Your task to perform on an android device: all mails in gmail Image 0: 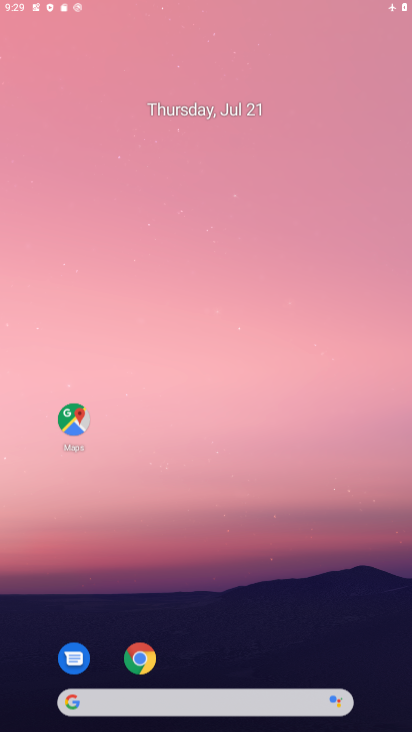
Step 0: click (134, 670)
Your task to perform on an android device: all mails in gmail Image 1: 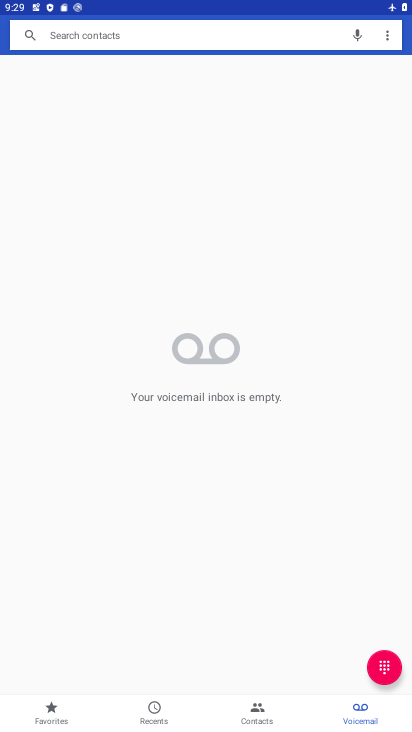
Step 1: press home button
Your task to perform on an android device: all mails in gmail Image 2: 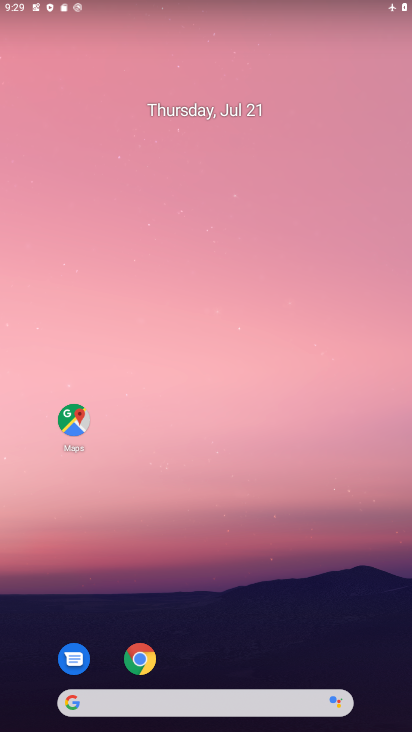
Step 2: drag from (231, 671) to (201, 85)
Your task to perform on an android device: all mails in gmail Image 3: 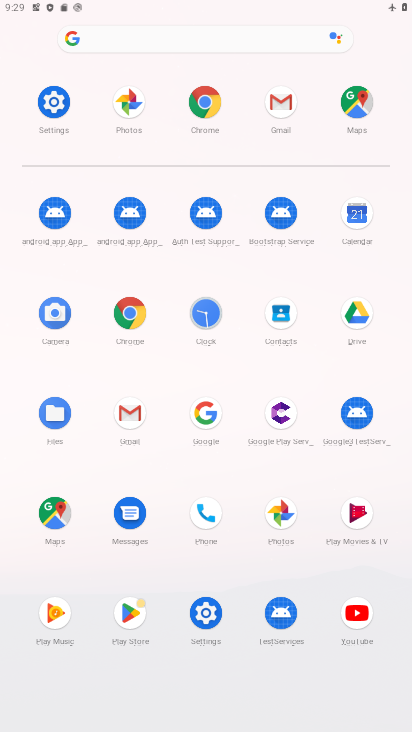
Step 3: click (122, 411)
Your task to perform on an android device: all mails in gmail Image 4: 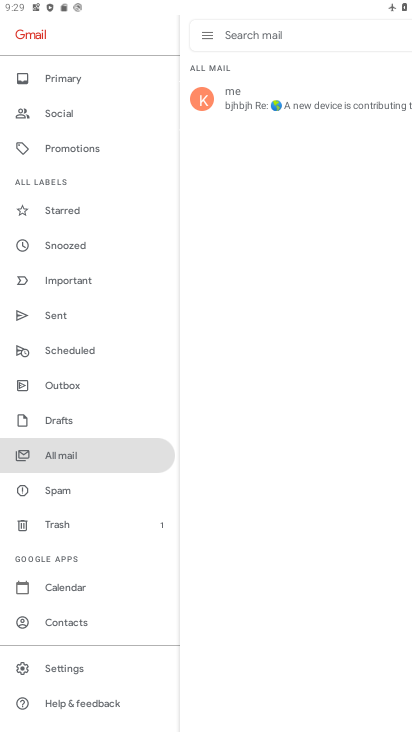
Step 4: click (33, 446)
Your task to perform on an android device: all mails in gmail Image 5: 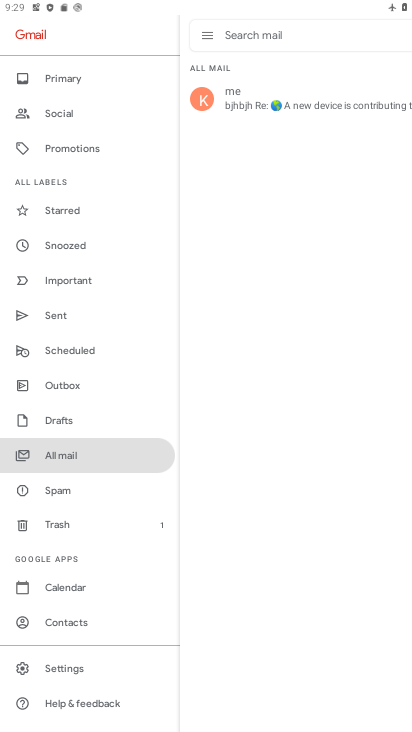
Step 5: task complete